Your task to perform on an android device: Go to Yahoo.com Image 0: 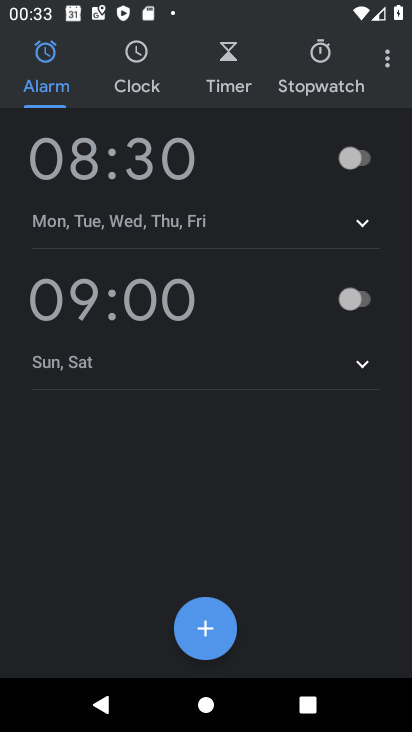
Step 0: press home button
Your task to perform on an android device: Go to Yahoo.com Image 1: 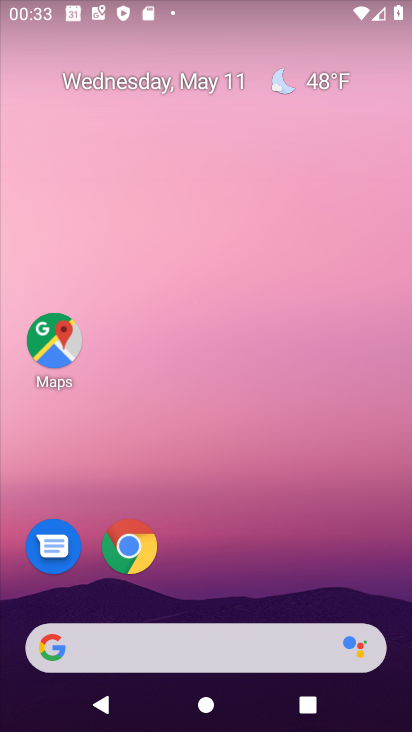
Step 1: click (150, 545)
Your task to perform on an android device: Go to Yahoo.com Image 2: 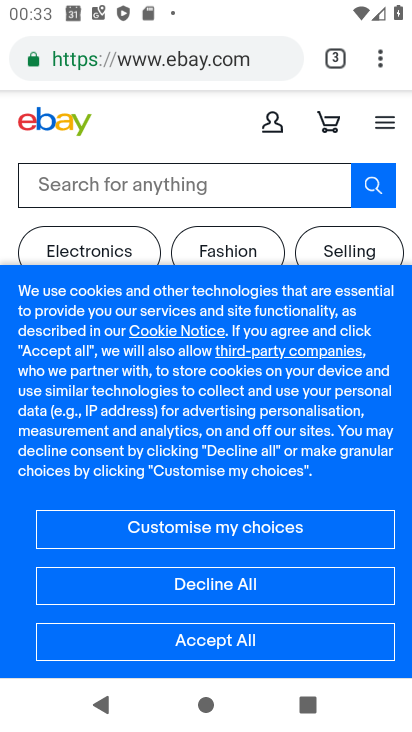
Step 2: click (345, 68)
Your task to perform on an android device: Go to Yahoo.com Image 3: 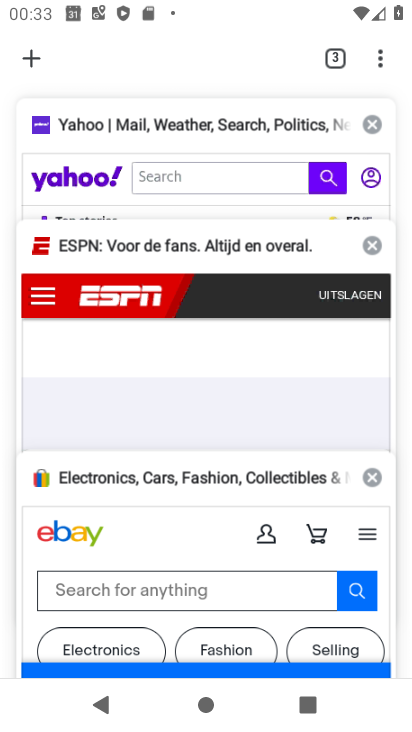
Step 3: click (76, 153)
Your task to perform on an android device: Go to Yahoo.com Image 4: 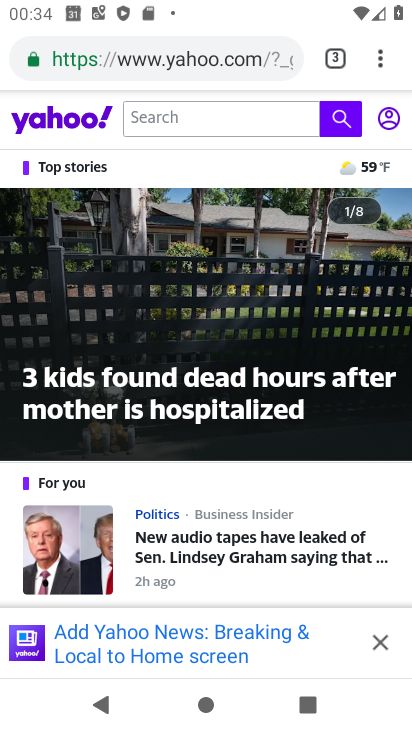
Step 4: task complete